Your task to perform on an android device: clear all cookies in the chrome app Image 0: 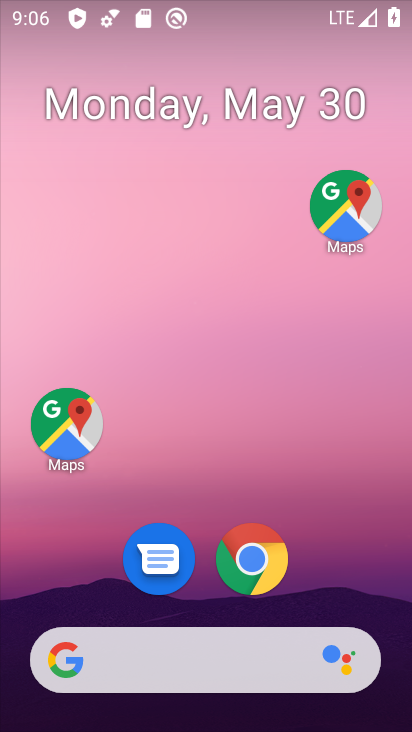
Step 0: click (262, 558)
Your task to perform on an android device: clear all cookies in the chrome app Image 1: 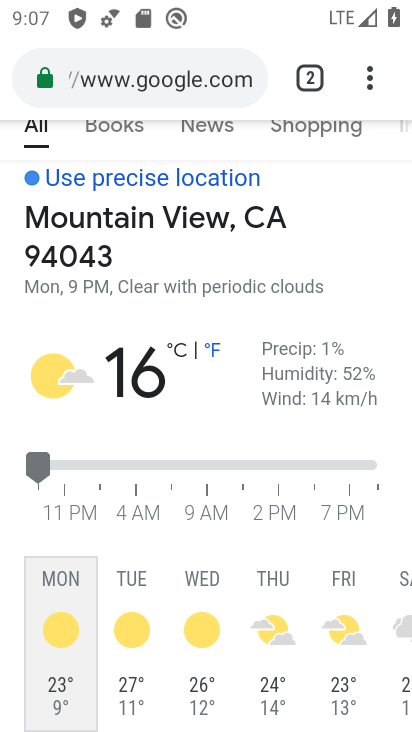
Step 1: drag from (377, 66) to (209, 441)
Your task to perform on an android device: clear all cookies in the chrome app Image 2: 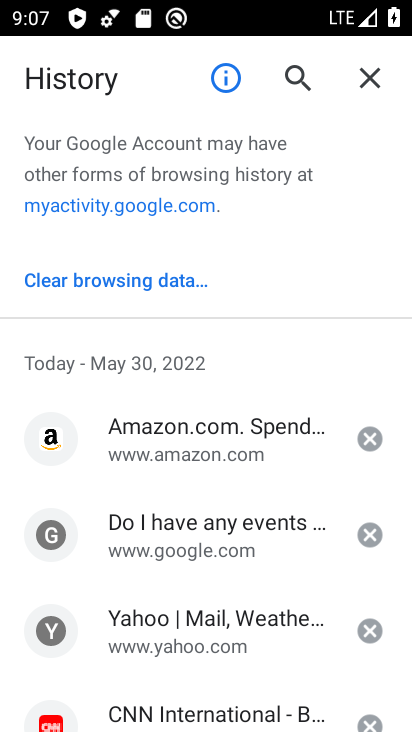
Step 2: click (147, 270)
Your task to perform on an android device: clear all cookies in the chrome app Image 3: 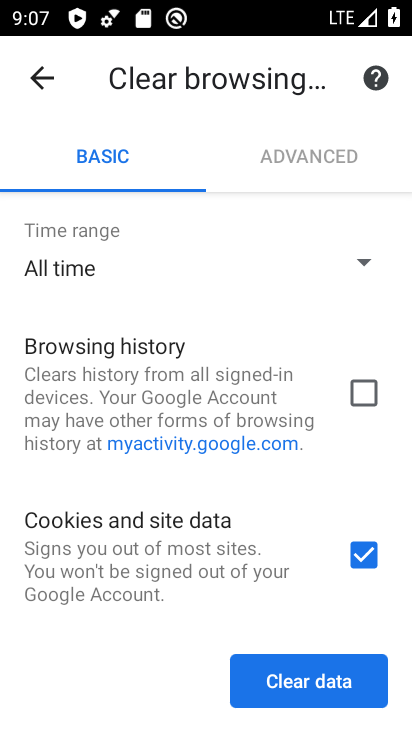
Step 3: click (333, 700)
Your task to perform on an android device: clear all cookies in the chrome app Image 4: 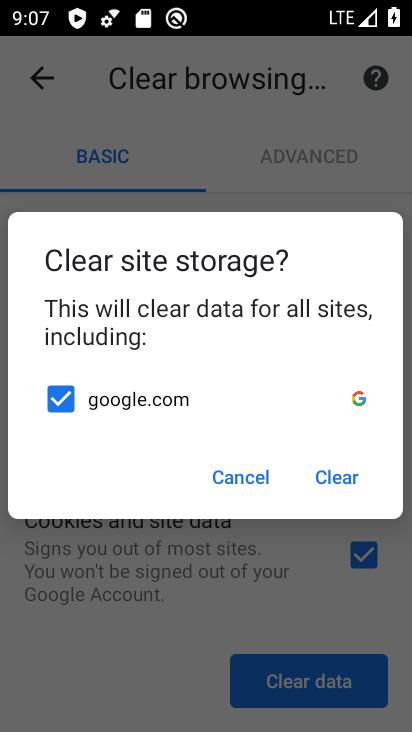
Step 4: click (334, 482)
Your task to perform on an android device: clear all cookies in the chrome app Image 5: 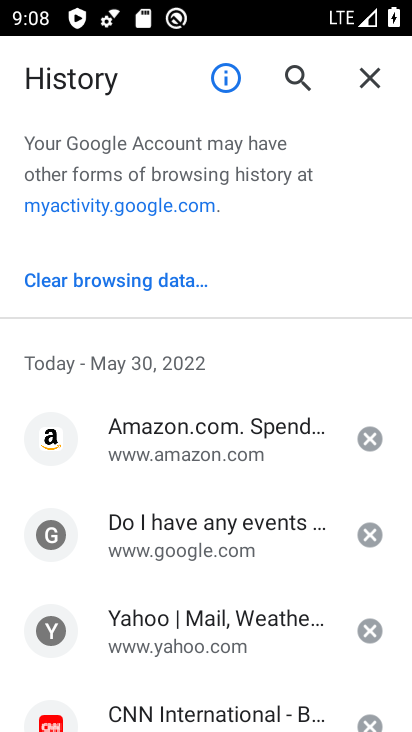
Step 5: task complete